Your task to perform on an android device: open a bookmark in the chrome app Image 0: 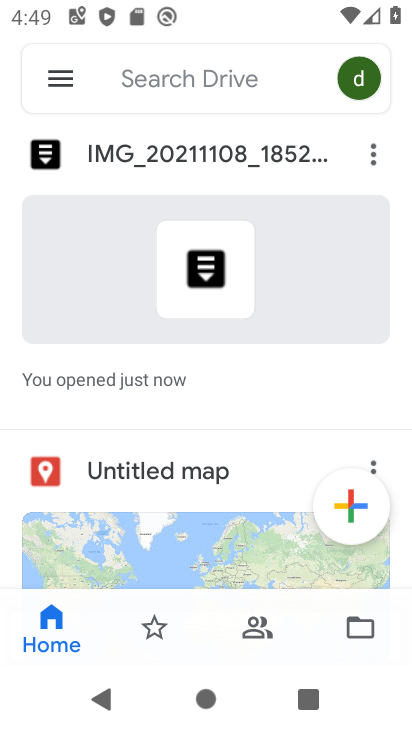
Step 0: press home button
Your task to perform on an android device: open a bookmark in the chrome app Image 1: 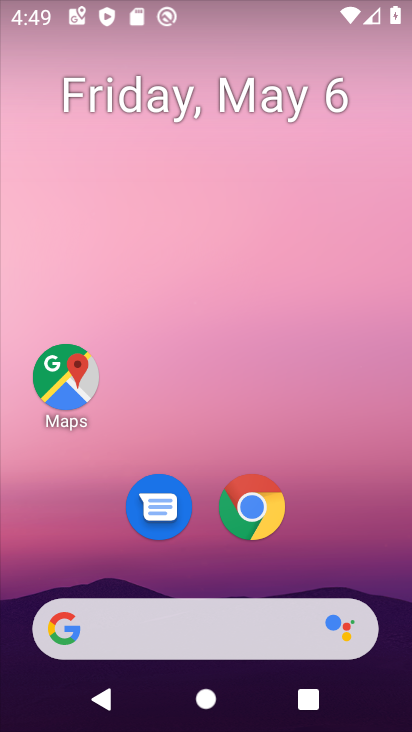
Step 1: click (255, 510)
Your task to perform on an android device: open a bookmark in the chrome app Image 2: 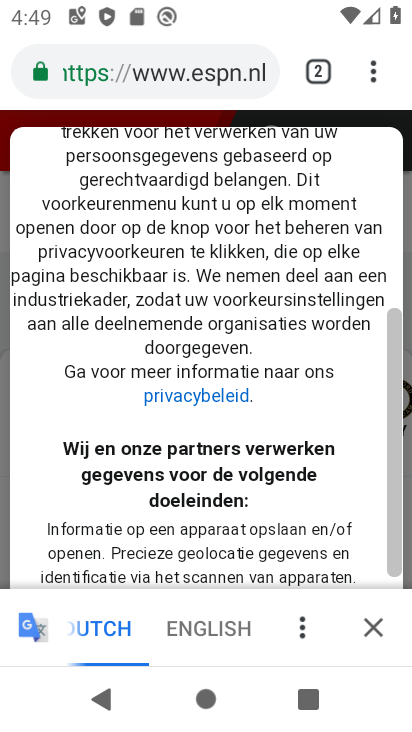
Step 2: click (370, 72)
Your task to perform on an android device: open a bookmark in the chrome app Image 3: 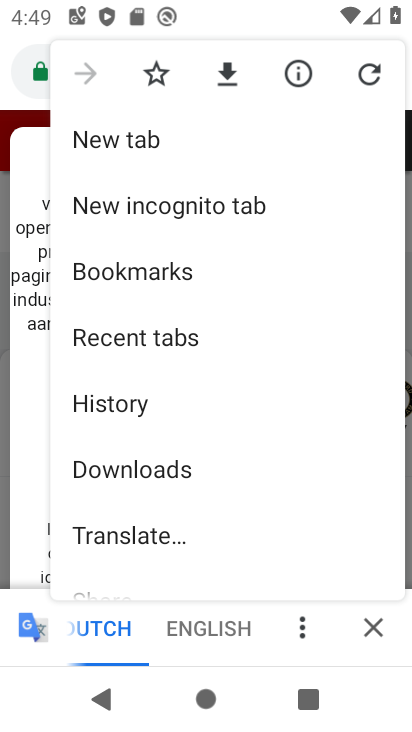
Step 3: click (131, 267)
Your task to perform on an android device: open a bookmark in the chrome app Image 4: 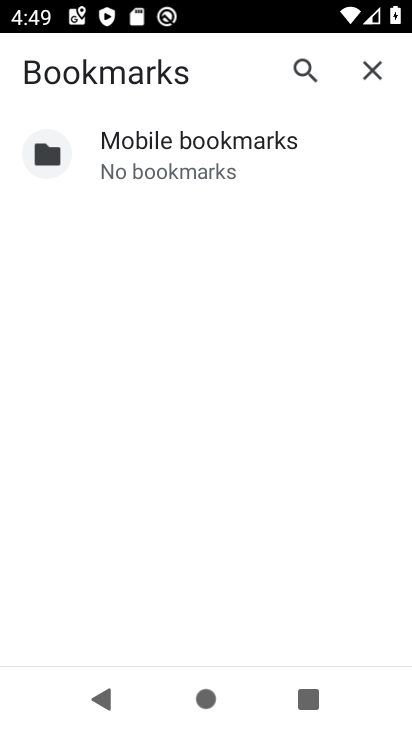
Step 4: task complete